Your task to perform on an android device: Search for Italian restaurants on Maps Image 0: 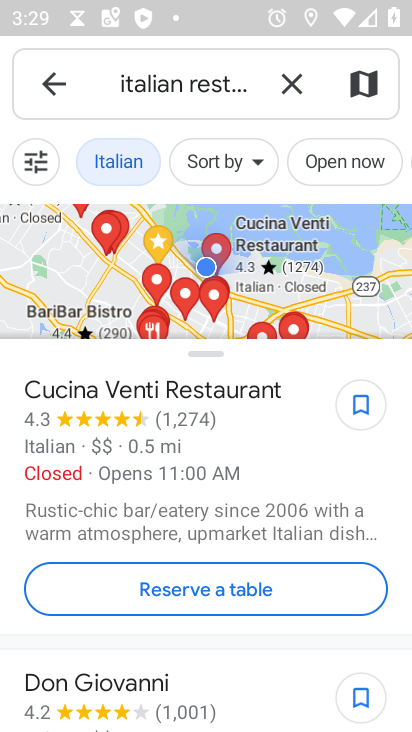
Step 0: drag from (158, 492) to (171, 223)
Your task to perform on an android device: Search for Italian restaurants on Maps Image 1: 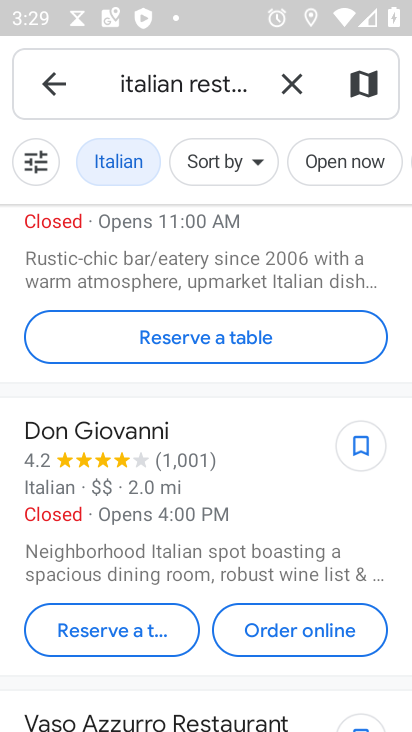
Step 1: task complete